Your task to perform on an android device: Is it going to rain this weekend? Image 0: 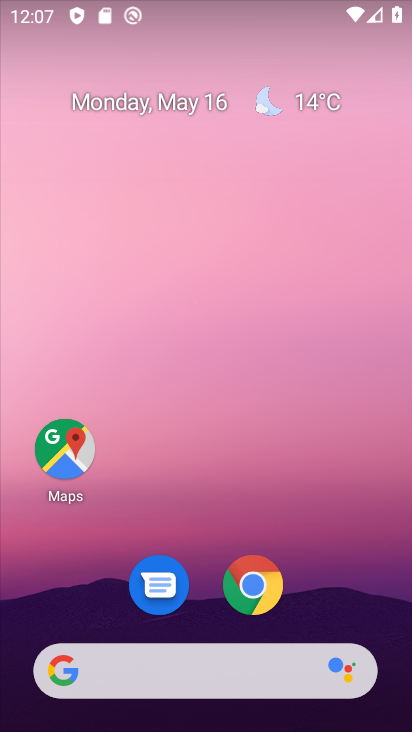
Step 0: click (312, 97)
Your task to perform on an android device: Is it going to rain this weekend? Image 1: 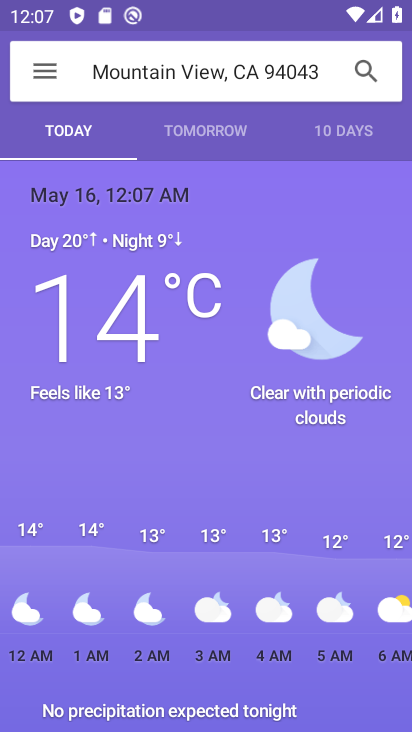
Step 1: click (348, 124)
Your task to perform on an android device: Is it going to rain this weekend? Image 2: 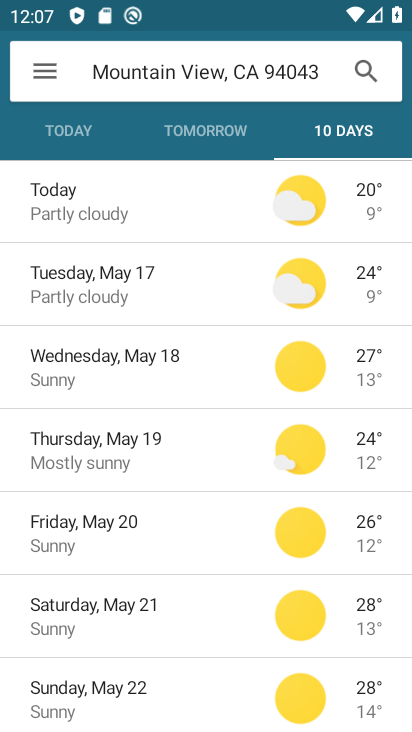
Step 2: click (118, 609)
Your task to perform on an android device: Is it going to rain this weekend? Image 3: 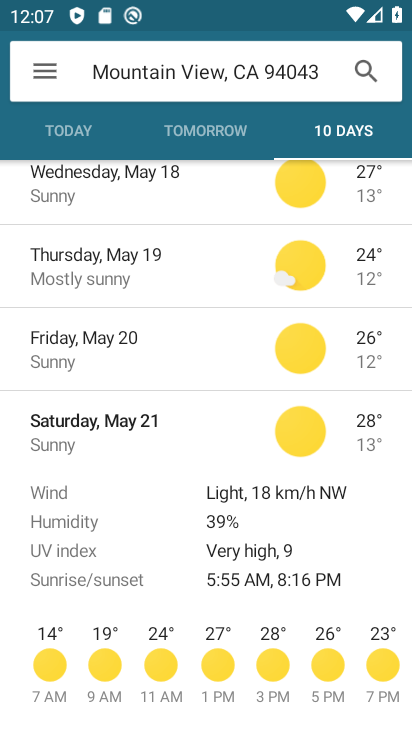
Step 3: task complete